Your task to perform on an android device: Go to Yahoo.com Image 0: 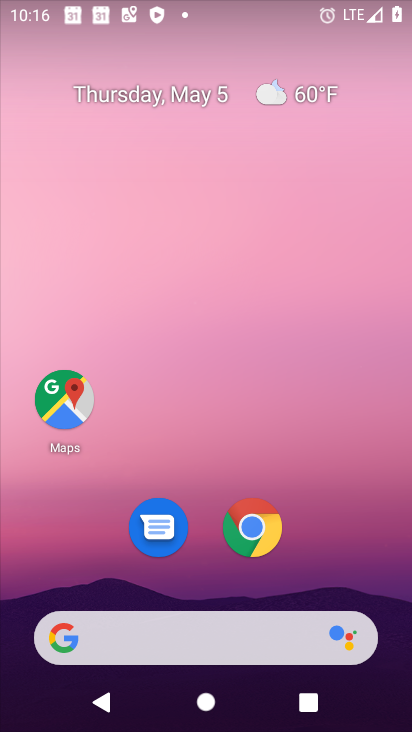
Step 0: click (172, 649)
Your task to perform on an android device: Go to Yahoo.com Image 1: 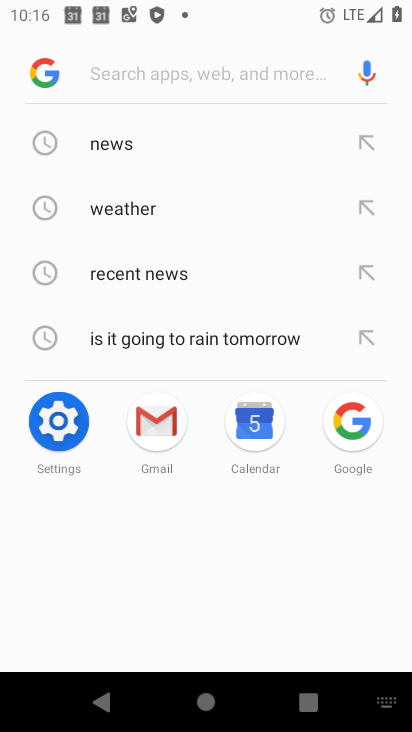
Step 1: type "yahoo.com"
Your task to perform on an android device: Go to Yahoo.com Image 2: 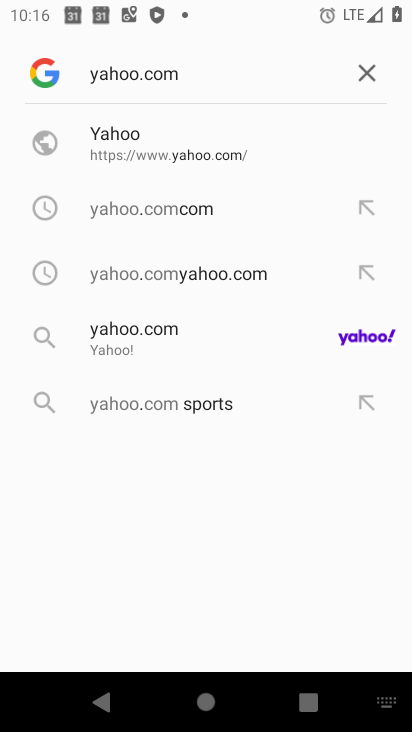
Step 2: click (100, 148)
Your task to perform on an android device: Go to Yahoo.com Image 3: 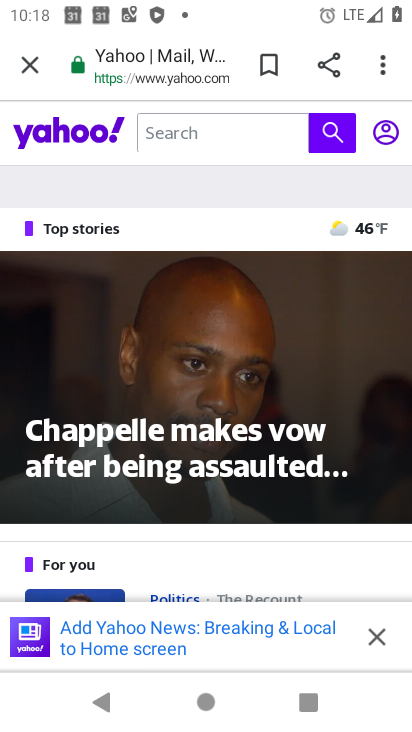
Step 3: task complete